Your task to perform on an android device: Open settings Image 0: 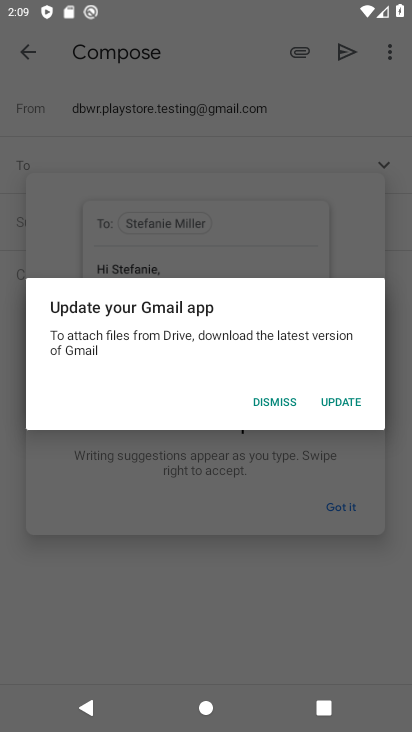
Step 0: press home button
Your task to perform on an android device: Open settings Image 1: 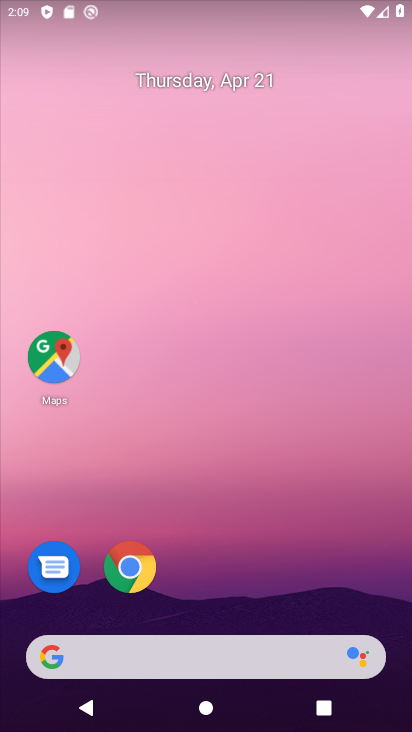
Step 1: drag from (245, 607) to (254, 0)
Your task to perform on an android device: Open settings Image 2: 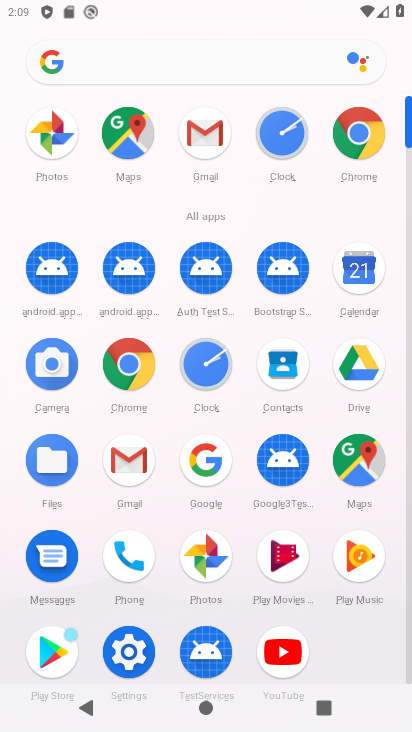
Step 2: click (131, 638)
Your task to perform on an android device: Open settings Image 3: 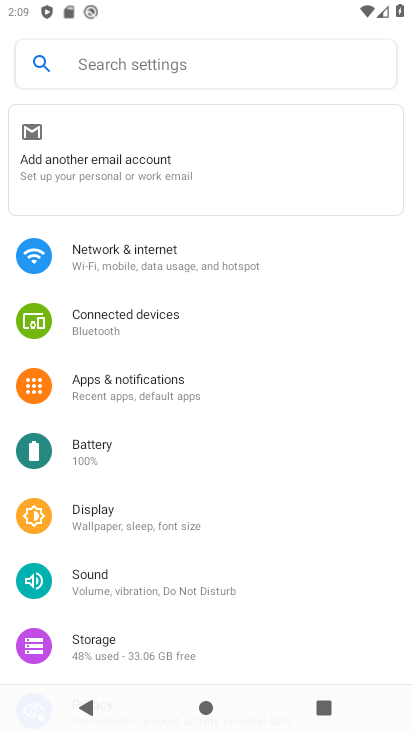
Step 3: task complete